Your task to perform on an android device: add a contact in the contacts app Image 0: 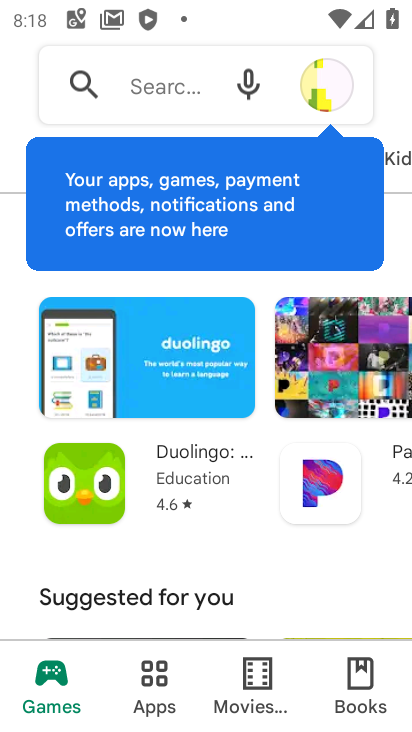
Step 0: press home button
Your task to perform on an android device: add a contact in the contacts app Image 1: 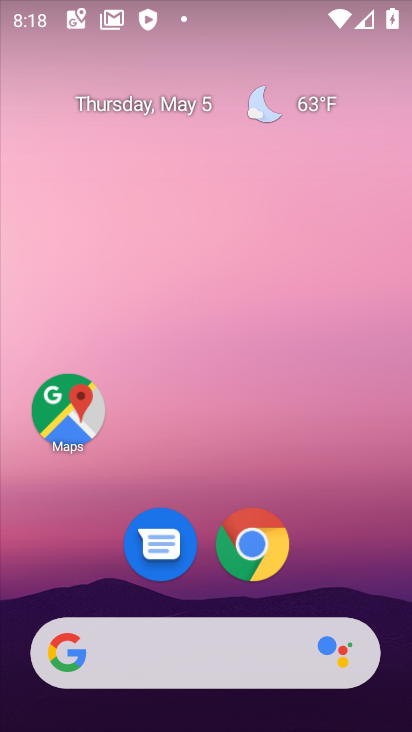
Step 1: drag from (386, 613) to (270, 44)
Your task to perform on an android device: add a contact in the contacts app Image 2: 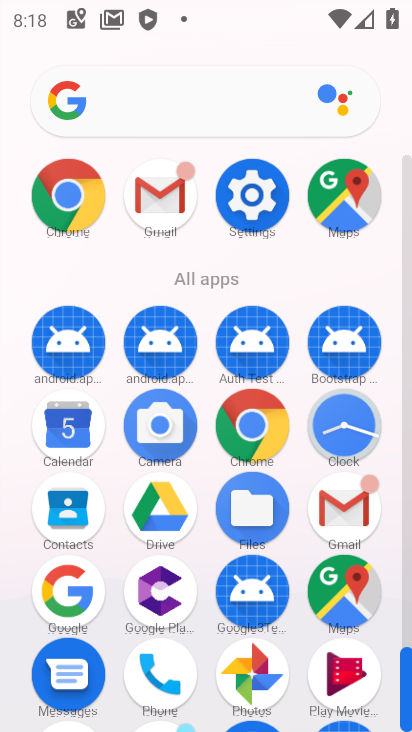
Step 2: click (89, 511)
Your task to perform on an android device: add a contact in the contacts app Image 3: 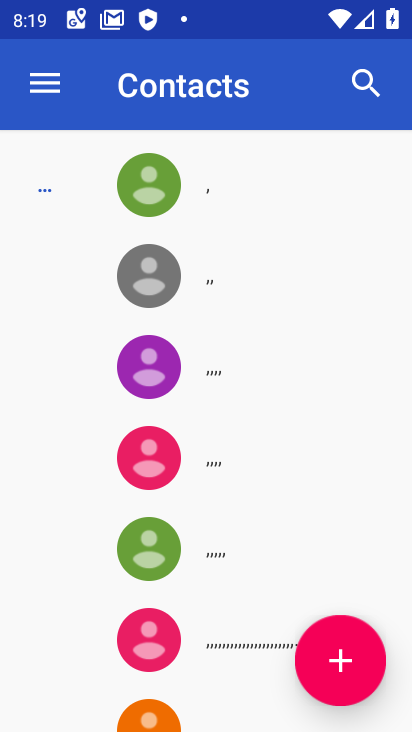
Step 3: click (338, 662)
Your task to perform on an android device: add a contact in the contacts app Image 4: 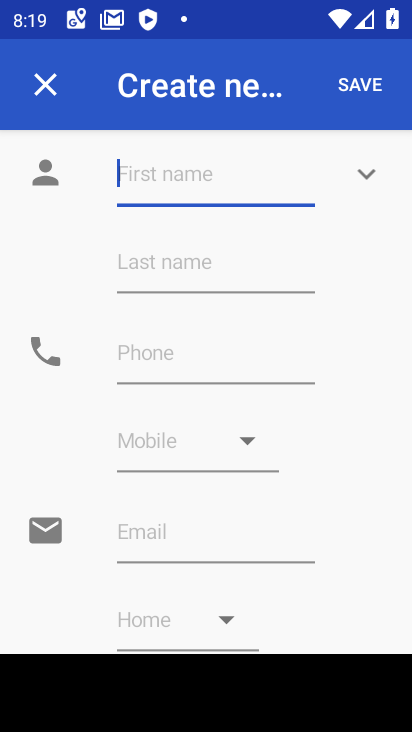
Step 4: click (355, 74)
Your task to perform on an android device: add a contact in the contacts app Image 5: 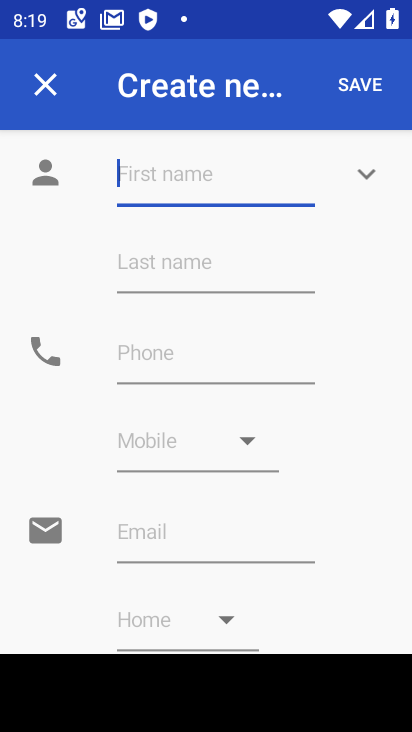
Step 5: type "Vida"
Your task to perform on an android device: add a contact in the contacts app Image 6: 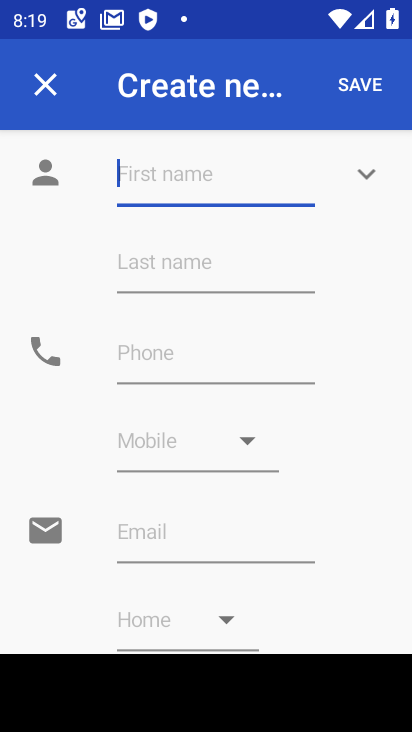
Step 6: click (355, 74)
Your task to perform on an android device: add a contact in the contacts app Image 7: 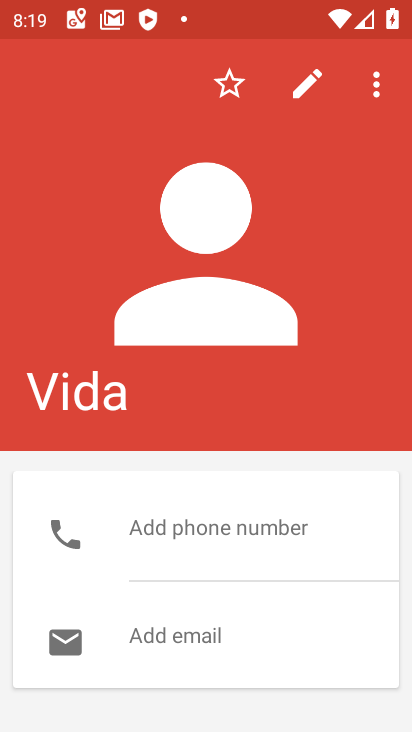
Step 7: task complete